Your task to perform on an android device: open chrome privacy settings Image 0: 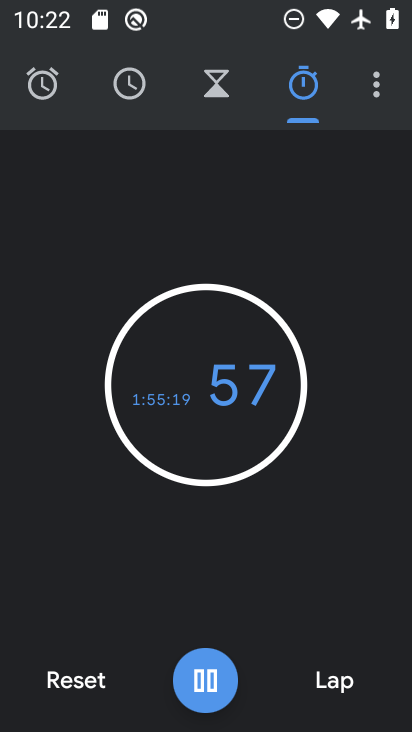
Step 0: press home button
Your task to perform on an android device: open chrome privacy settings Image 1: 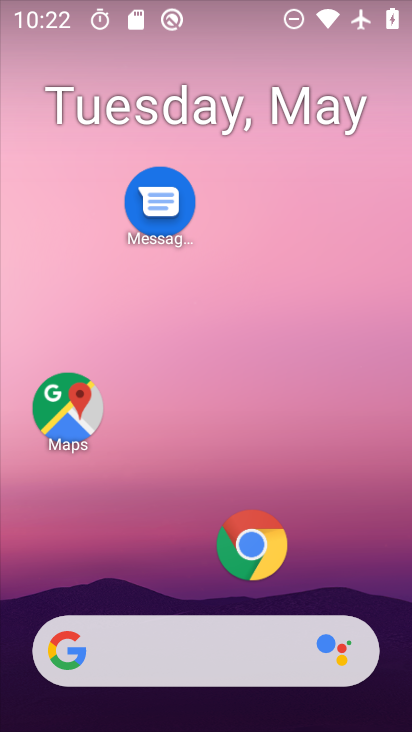
Step 1: click (264, 557)
Your task to perform on an android device: open chrome privacy settings Image 2: 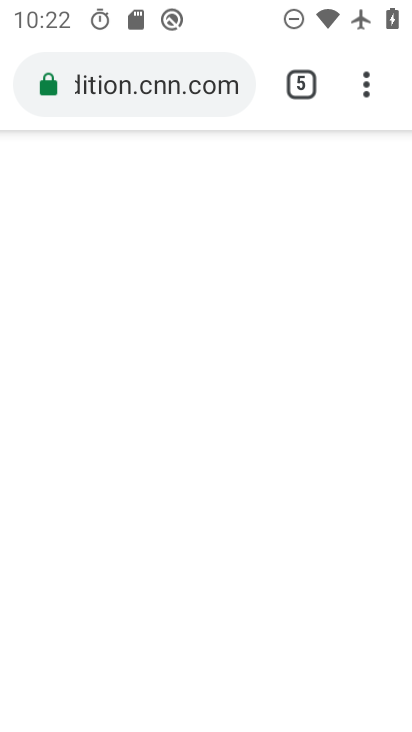
Step 2: drag from (364, 86) to (119, 578)
Your task to perform on an android device: open chrome privacy settings Image 3: 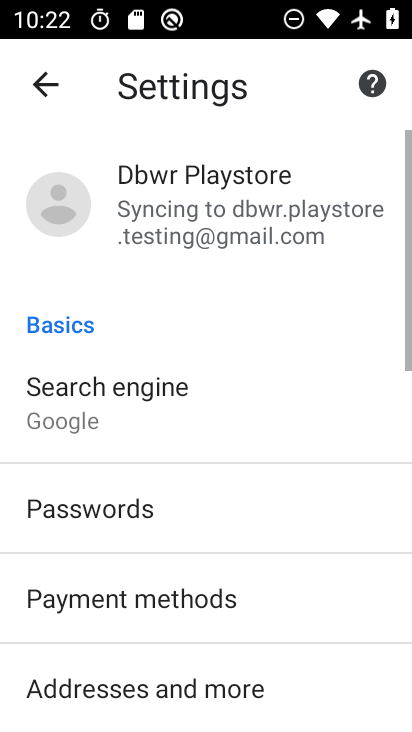
Step 3: drag from (171, 641) to (268, 261)
Your task to perform on an android device: open chrome privacy settings Image 4: 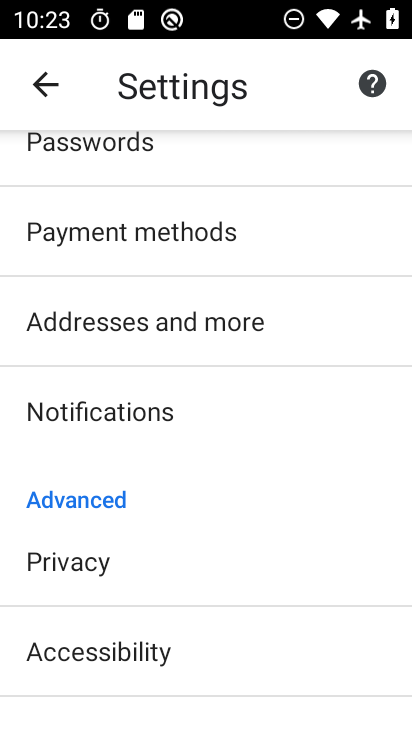
Step 4: click (86, 531)
Your task to perform on an android device: open chrome privacy settings Image 5: 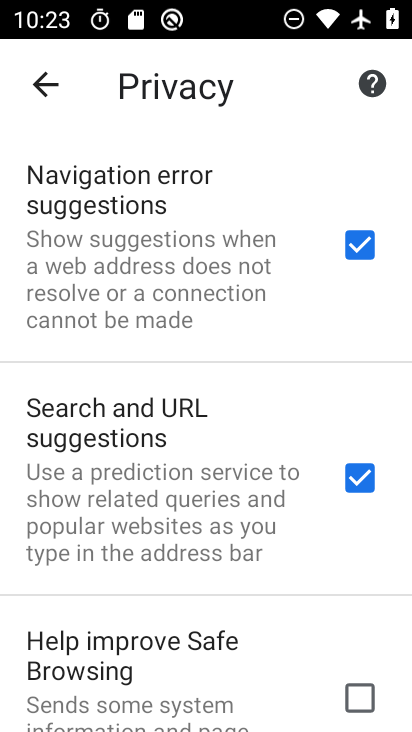
Step 5: task complete